Your task to perform on an android device: Go to display settings Image 0: 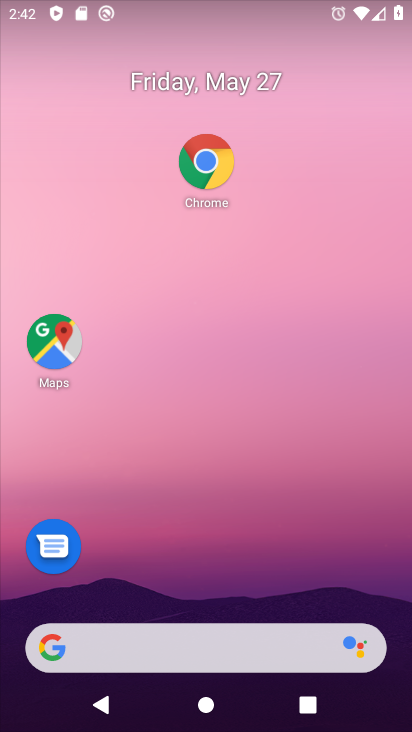
Step 0: drag from (218, 600) to (310, 291)
Your task to perform on an android device: Go to display settings Image 1: 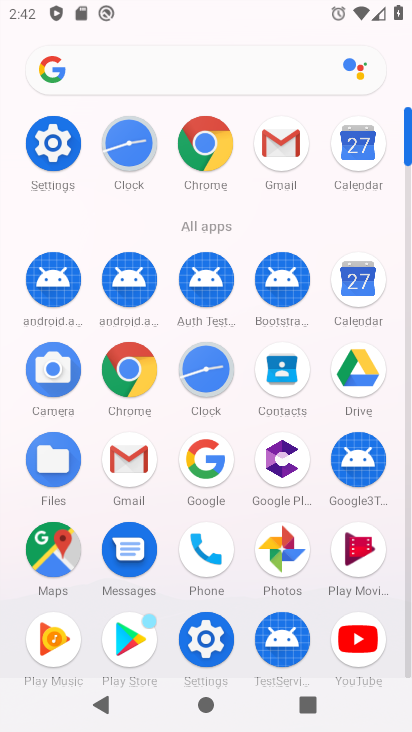
Step 1: click (57, 147)
Your task to perform on an android device: Go to display settings Image 2: 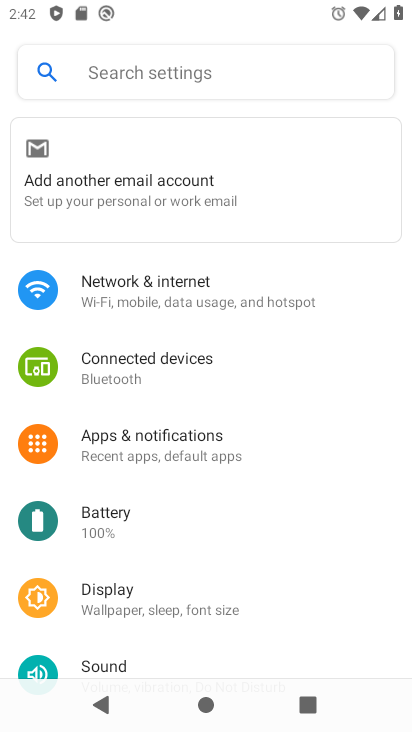
Step 2: click (153, 588)
Your task to perform on an android device: Go to display settings Image 3: 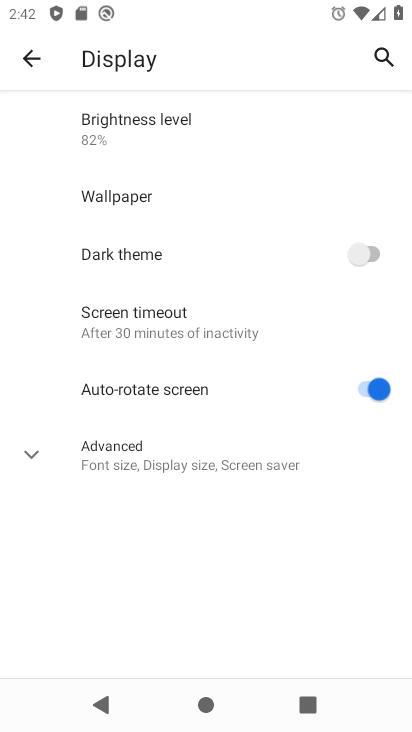
Step 3: task complete